Your task to perform on an android device: Add "razer huntsman" to the cart on ebay Image 0: 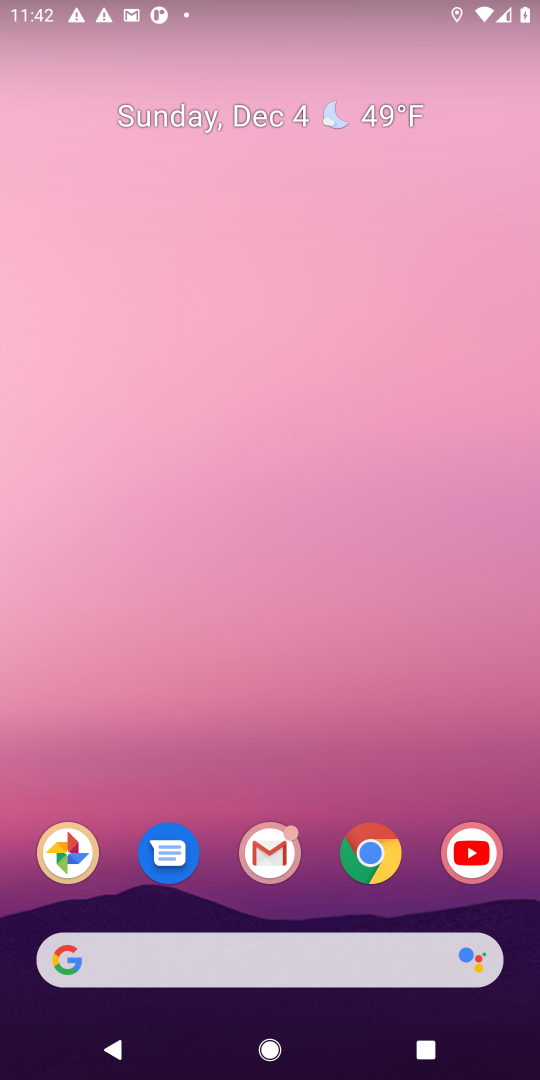
Step 0: click (366, 837)
Your task to perform on an android device: Add "razer huntsman" to the cart on ebay Image 1: 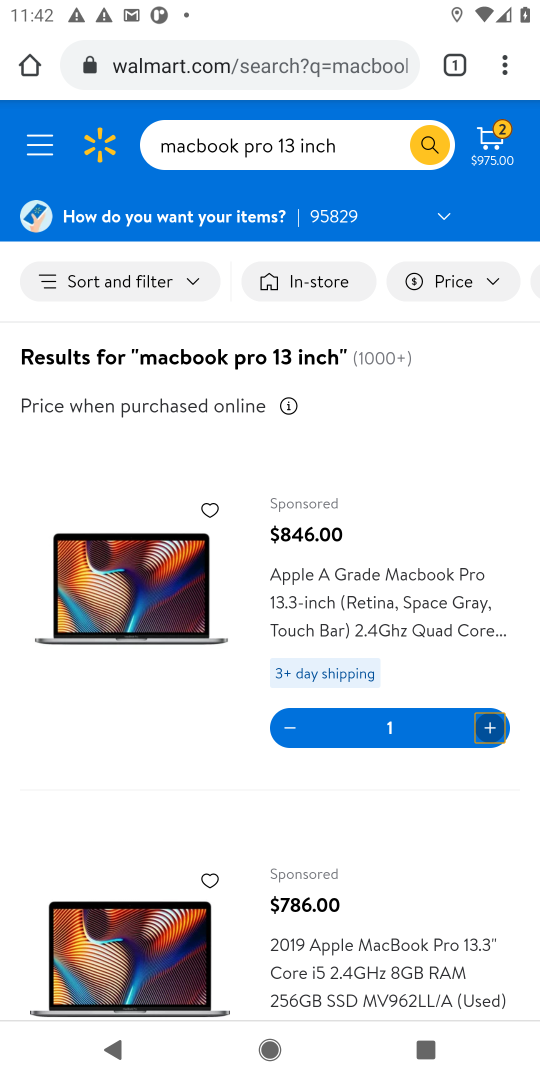
Step 1: click (157, 67)
Your task to perform on an android device: Add "razer huntsman" to the cart on ebay Image 2: 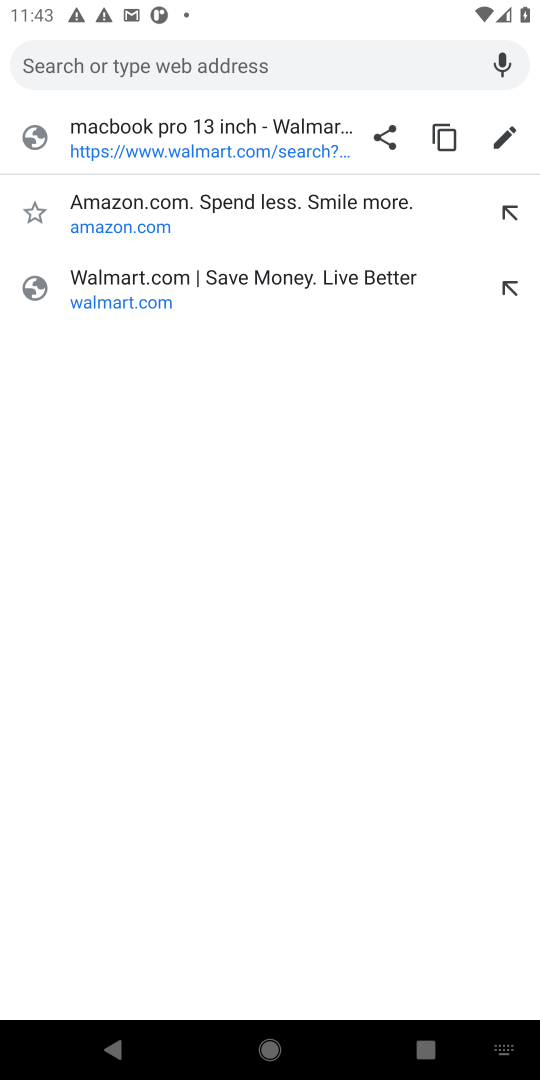
Step 2: type "ebay"
Your task to perform on an android device: Add "razer huntsman" to the cart on ebay Image 3: 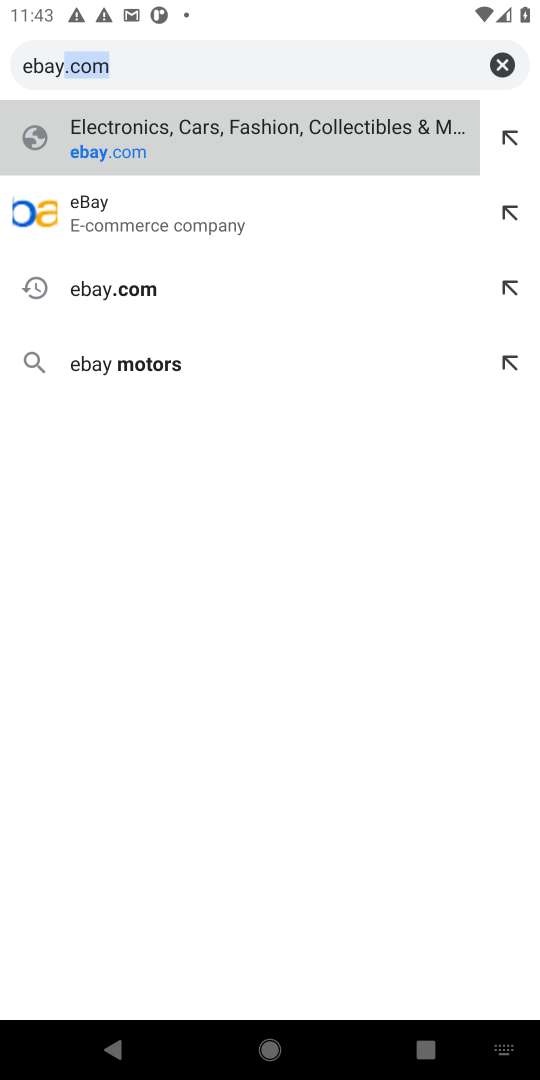
Step 3: click (178, 207)
Your task to perform on an android device: Add "razer huntsman" to the cart on ebay Image 4: 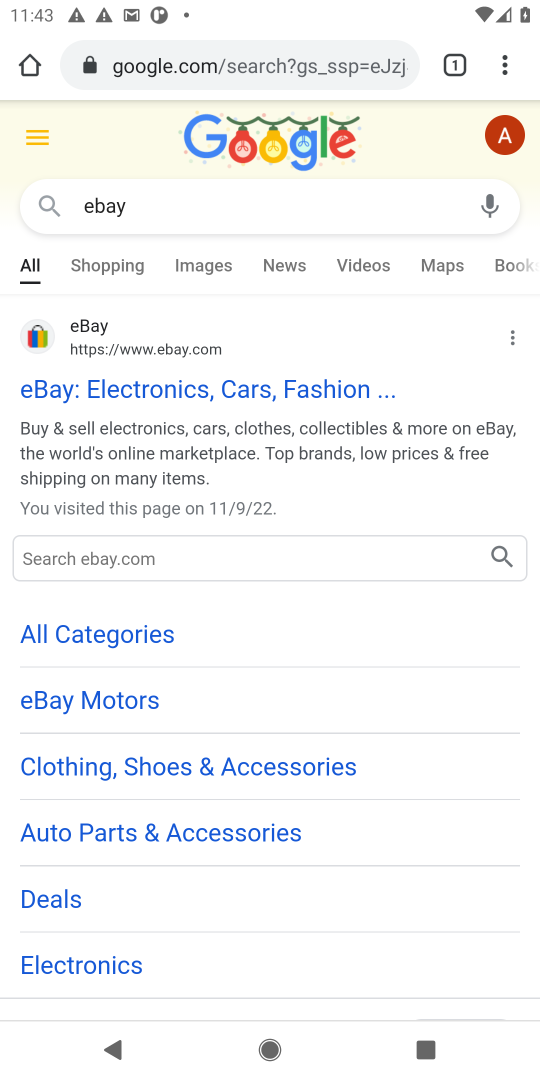
Step 4: click (194, 393)
Your task to perform on an android device: Add "razer huntsman" to the cart on ebay Image 5: 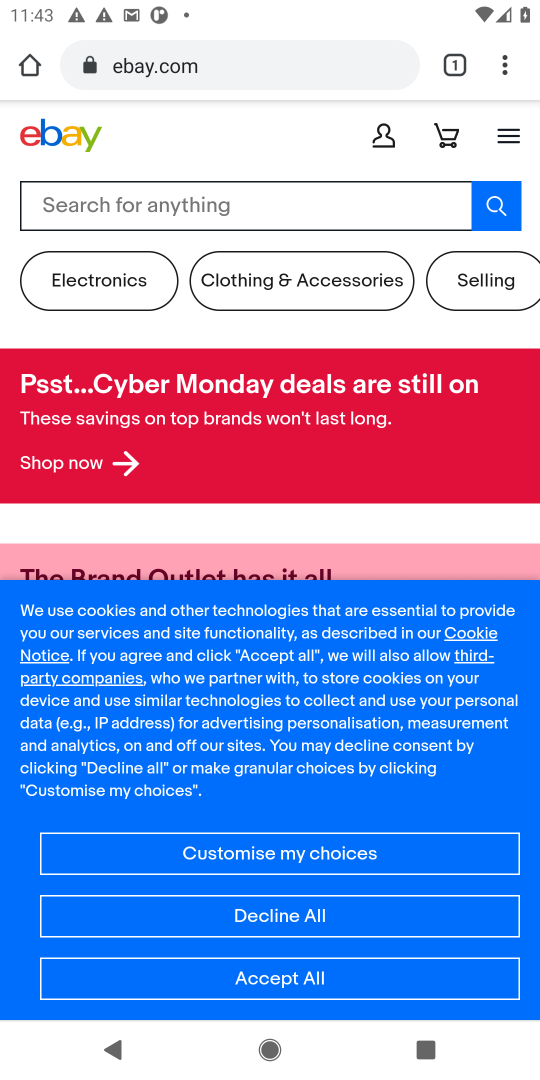
Step 5: click (187, 195)
Your task to perform on an android device: Add "razer huntsman" to the cart on ebay Image 6: 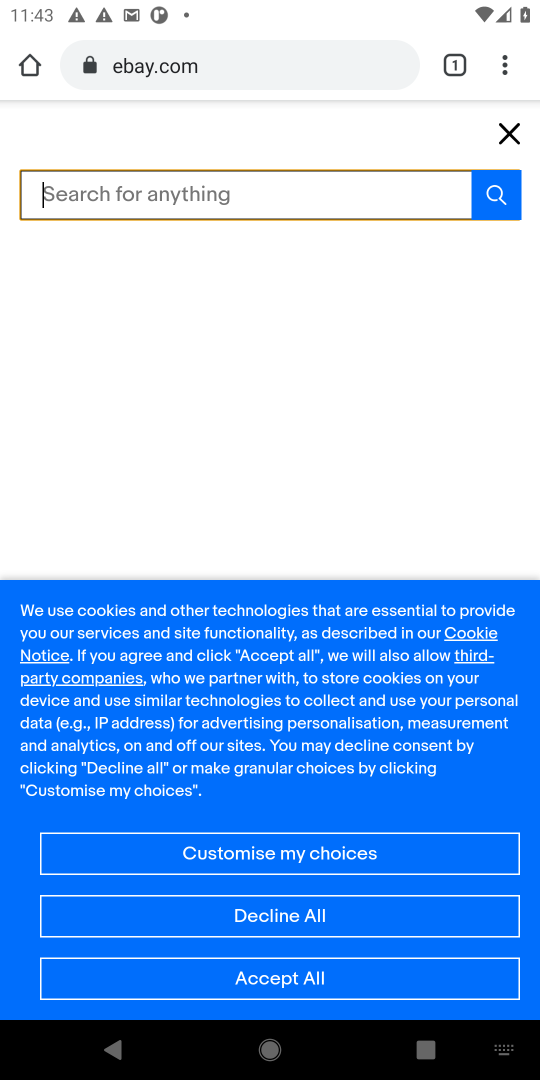
Step 6: type "razer huntsman"
Your task to perform on an android device: Add "razer huntsman" to the cart on ebay Image 7: 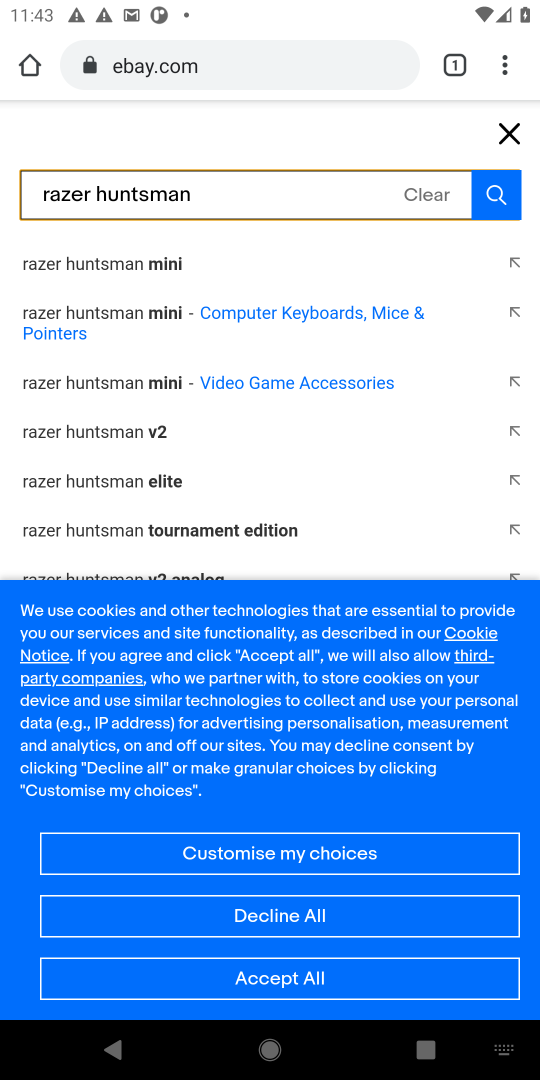
Step 7: click (500, 209)
Your task to perform on an android device: Add "razer huntsman" to the cart on ebay Image 8: 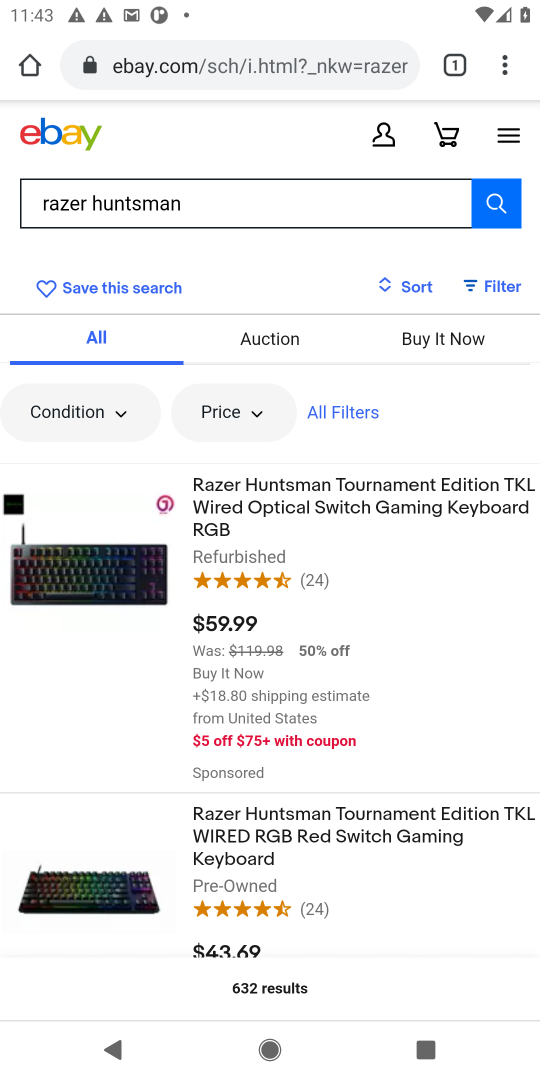
Step 8: click (325, 511)
Your task to perform on an android device: Add "razer huntsman" to the cart on ebay Image 9: 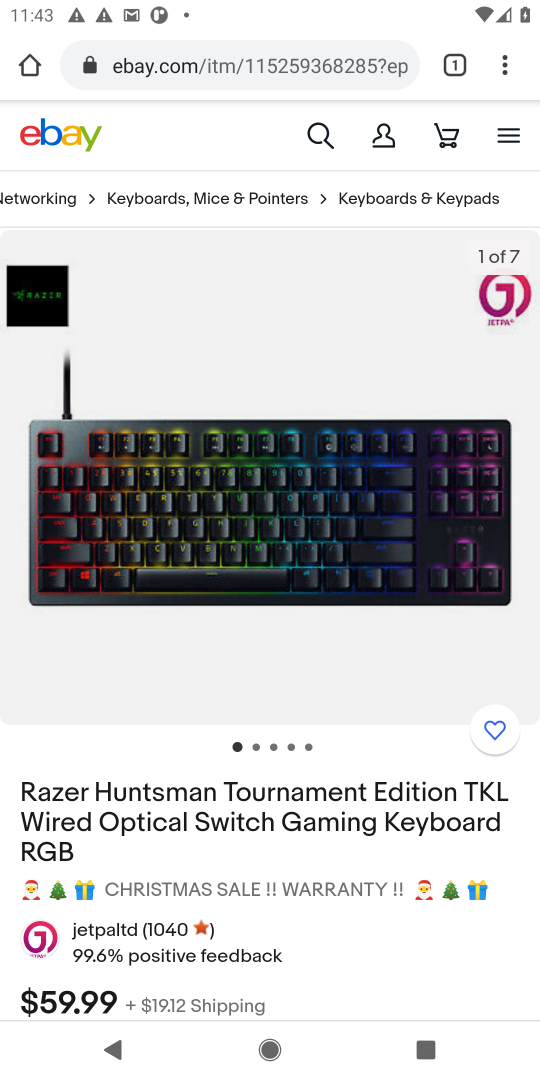
Step 9: drag from (236, 885) to (292, 249)
Your task to perform on an android device: Add "razer huntsman" to the cart on ebay Image 10: 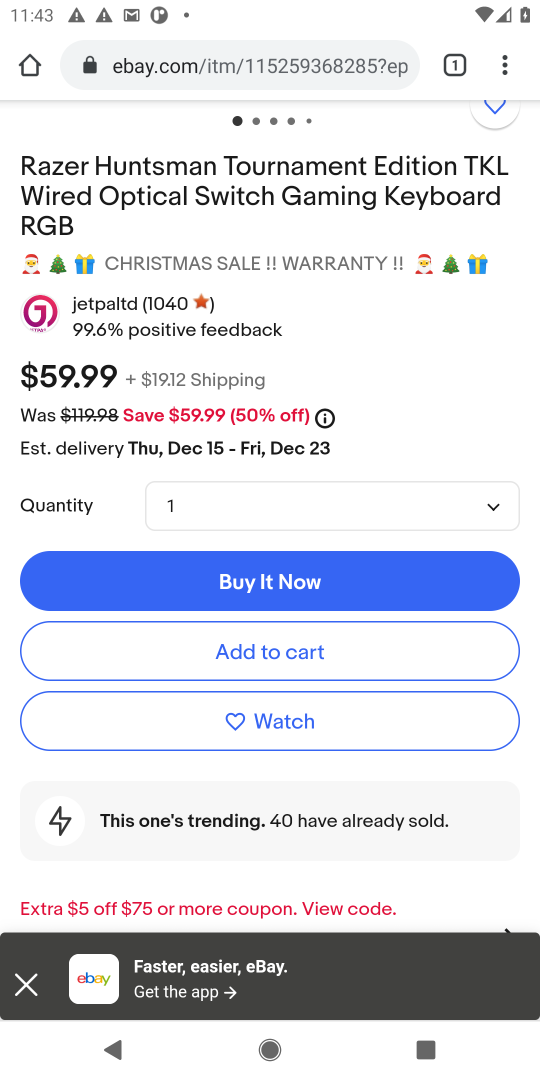
Step 10: click (237, 650)
Your task to perform on an android device: Add "razer huntsman" to the cart on ebay Image 11: 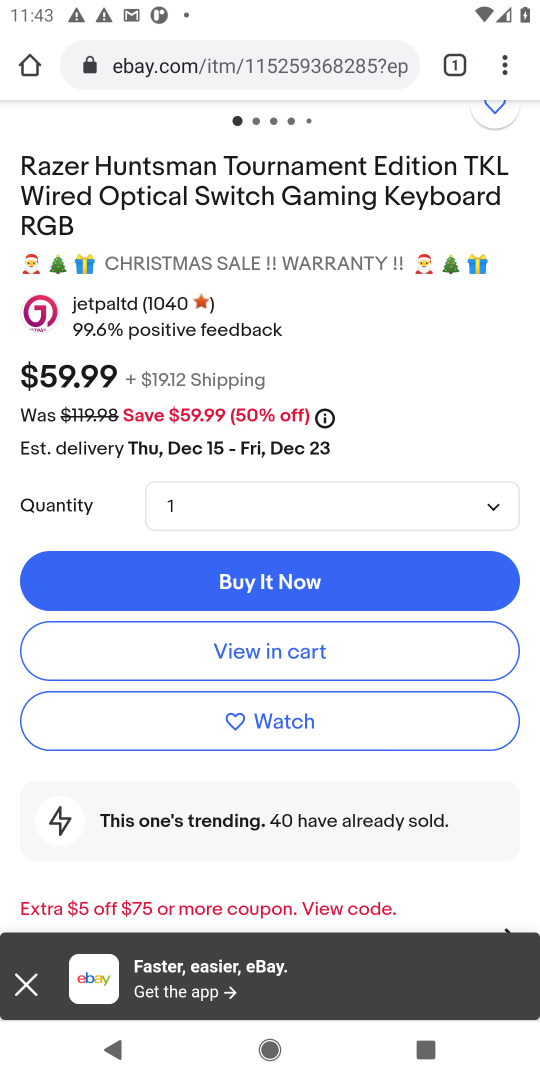
Step 11: task complete